Your task to perform on an android device: Look up the best gaming chair on Best Buy. Image 0: 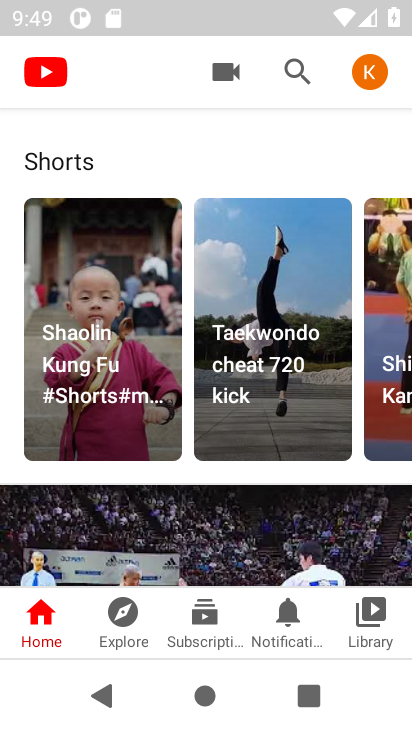
Step 0: task complete